Your task to perform on an android device: Go to accessibility settings Image 0: 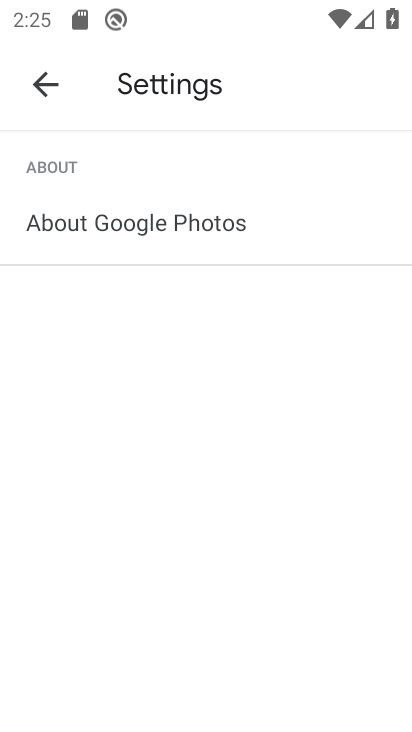
Step 0: press home button
Your task to perform on an android device: Go to accessibility settings Image 1: 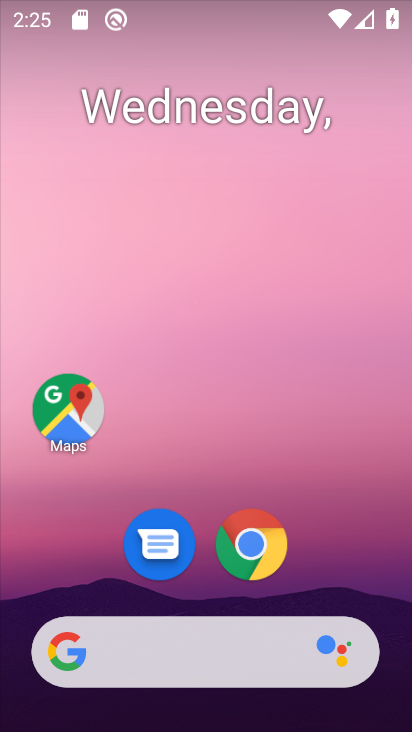
Step 1: click (303, 77)
Your task to perform on an android device: Go to accessibility settings Image 2: 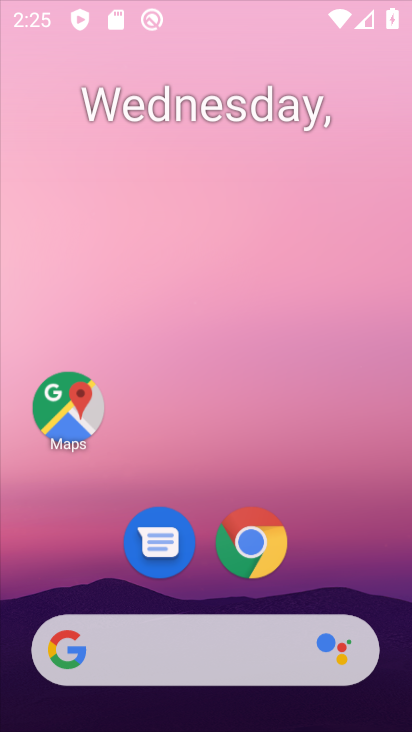
Step 2: drag from (197, 618) to (300, 118)
Your task to perform on an android device: Go to accessibility settings Image 3: 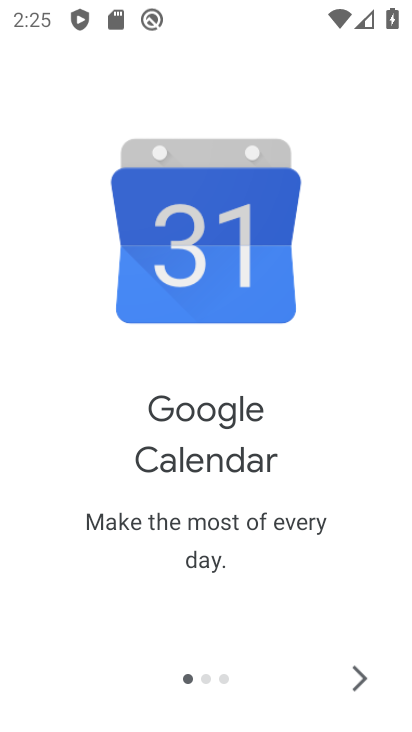
Step 3: press back button
Your task to perform on an android device: Go to accessibility settings Image 4: 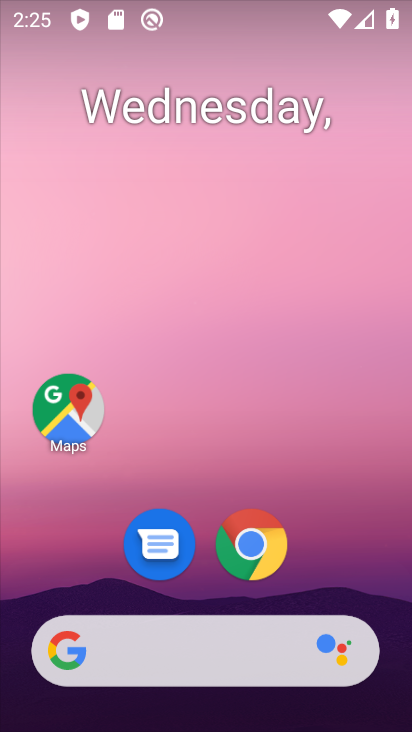
Step 4: drag from (186, 623) to (272, 124)
Your task to perform on an android device: Go to accessibility settings Image 5: 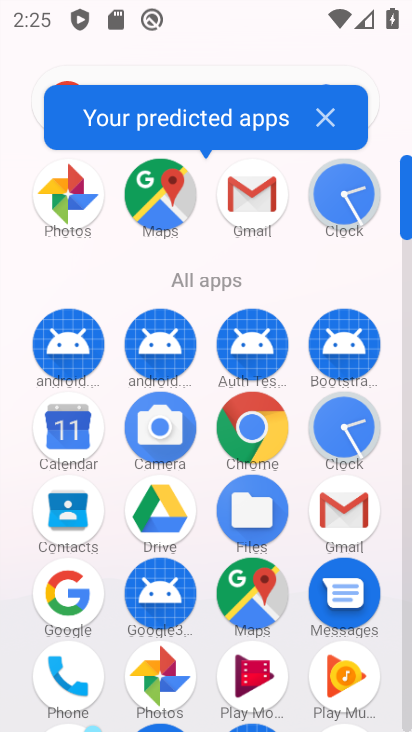
Step 5: drag from (173, 690) to (262, 382)
Your task to perform on an android device: Go to accessibility settings Image 6: 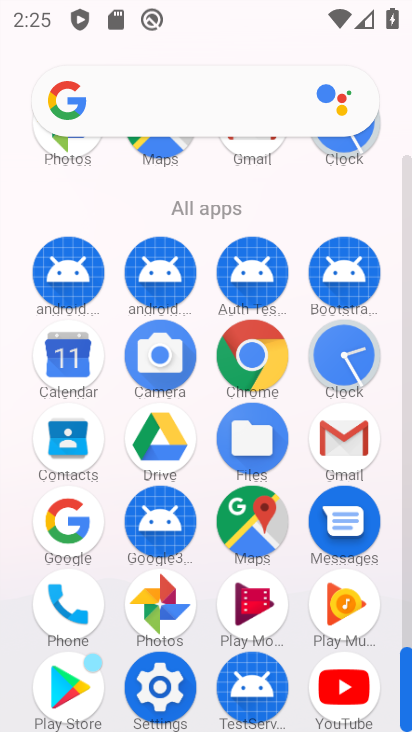
Step 6: click (159, 691)
Your task to perform on an android device: Go to accessibility settings Image 7: 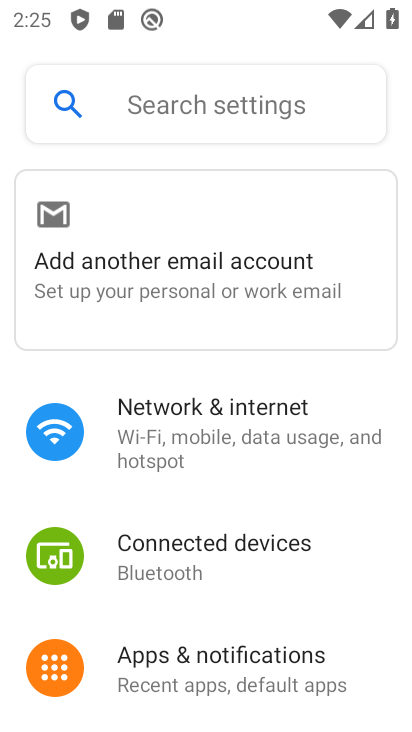
Step 7: drag from (240, 548) to (353, 139)
Your task to perform on an android device: Go to accessibility settings Image 8: 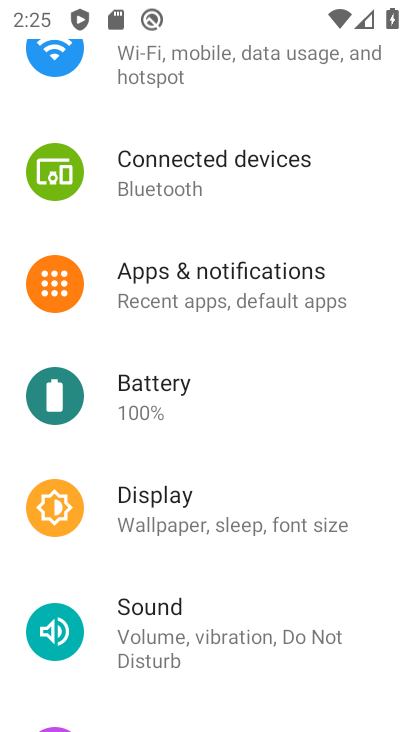
Step 8: drag from (218, 644) to (361, 250)
Your task to perform on an android device: Go to accessibility settings Image 9: 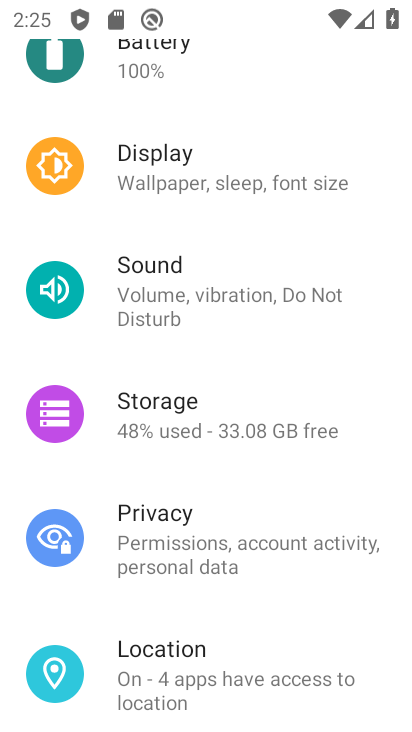
Step 9: drag from (257, 665) to (367, 289)
Your task to perform on an android device: Go to accessibility settings Image 10: 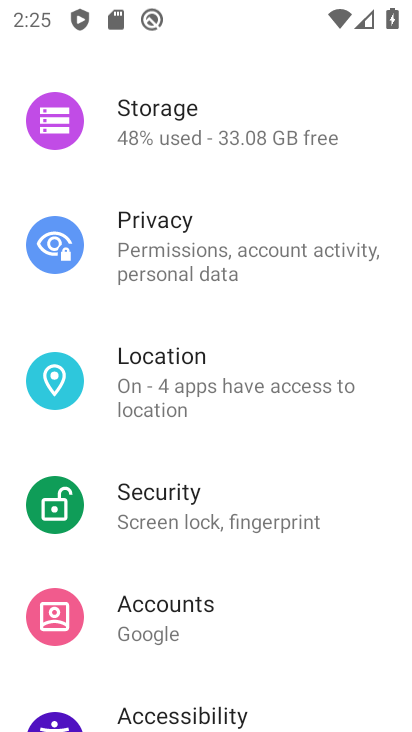
Step 10: click (221, 714)
Your task to perform on an android device: Go to accessibility settings Image 11: 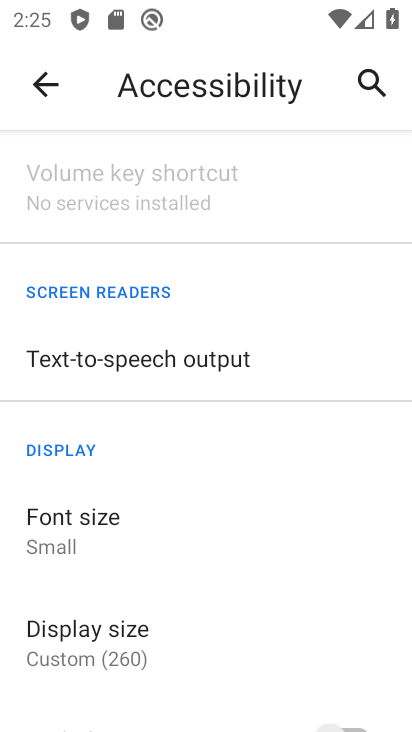
Step 11: task complete